Your task to perform on an android device: Open Chrome and go to the settings page Image 0: 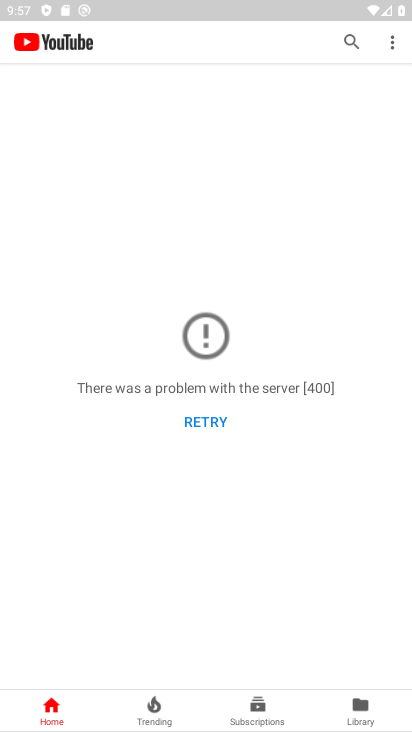
Step 0: press home button
Your task to perform on an android device: Open Chrome and go to the settings page Image 1: 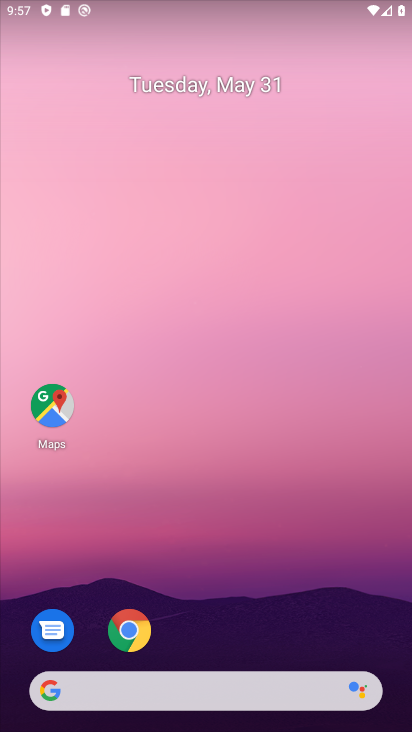
Step 1: click (124, 635)
Your task to perform on an android device: Open Chrome and go to the settings page Image 2: 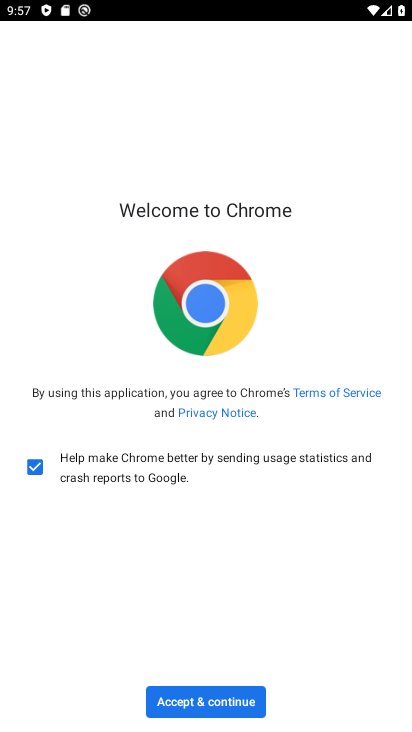
Step 2: click (216, 690)
Your task to perform on an android device: Open Chrome and go to the settings page Image 3: 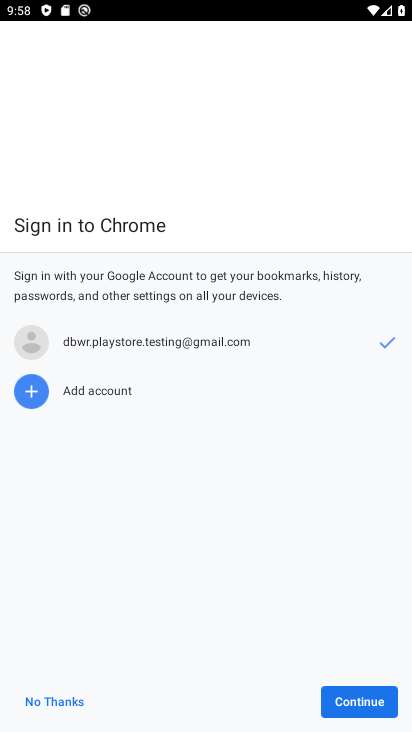
Step 3: click (356, 695)
Your task to perform on an android device: Open Chrome and go to the settings page Image 4: 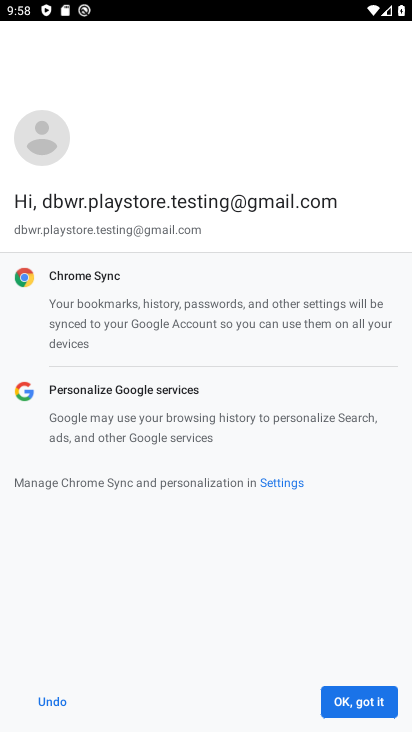
Step 4: click (356, 695)
Your task to perform on an android device: Open Chrome and go to the settings page Image 5: 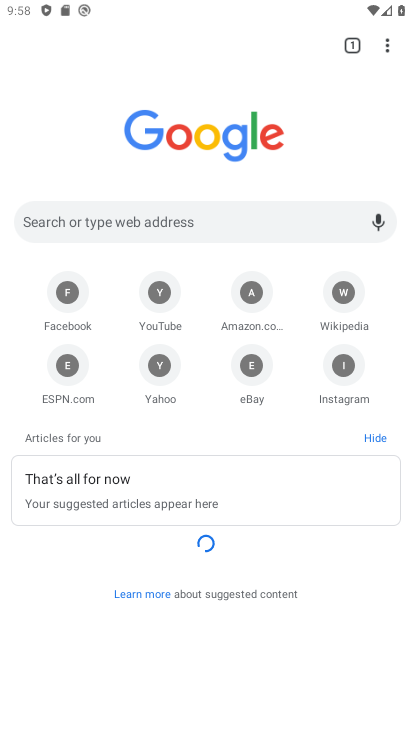
Step 5: task complete